Your task to perform on an android device: What are the best selling refrigerators at Home Depot? Image 0: 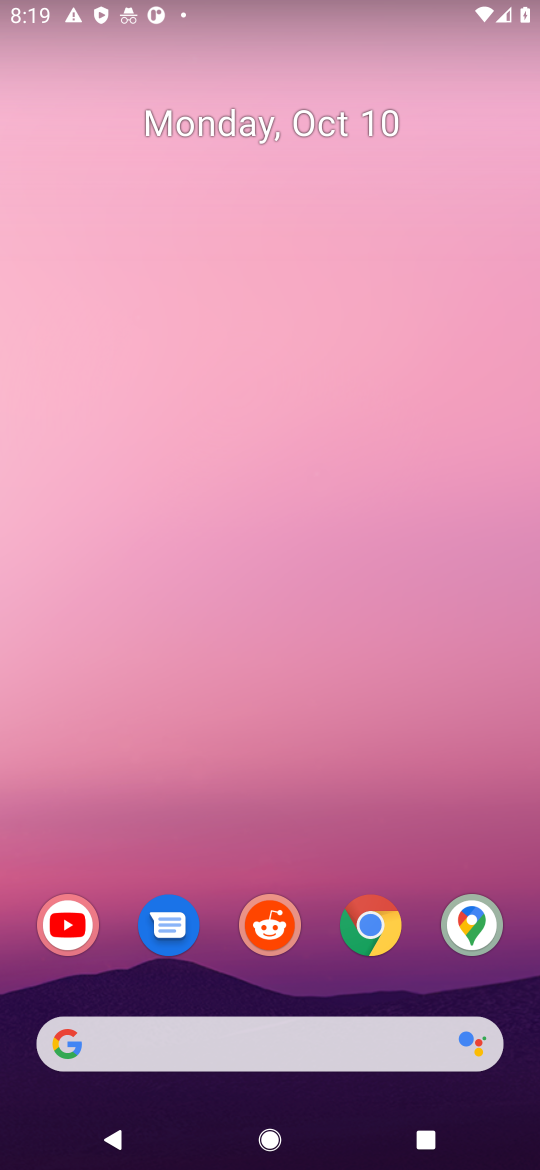
Step 0: drag from (340, 1002) to (293, 40)
Your task to perform on an android device: What are the best selling refrigerators at Home Depot? Image 1: 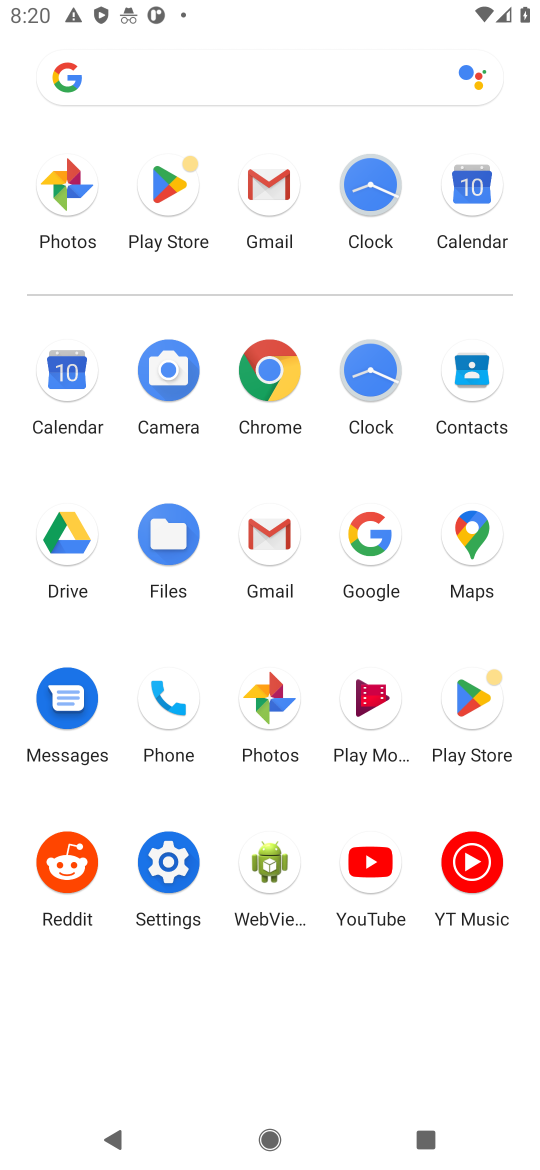
Step 1: click (266, 372)
Your task to perform on an android device: What are the best selling refrigerators at Home Depot? Image 2: 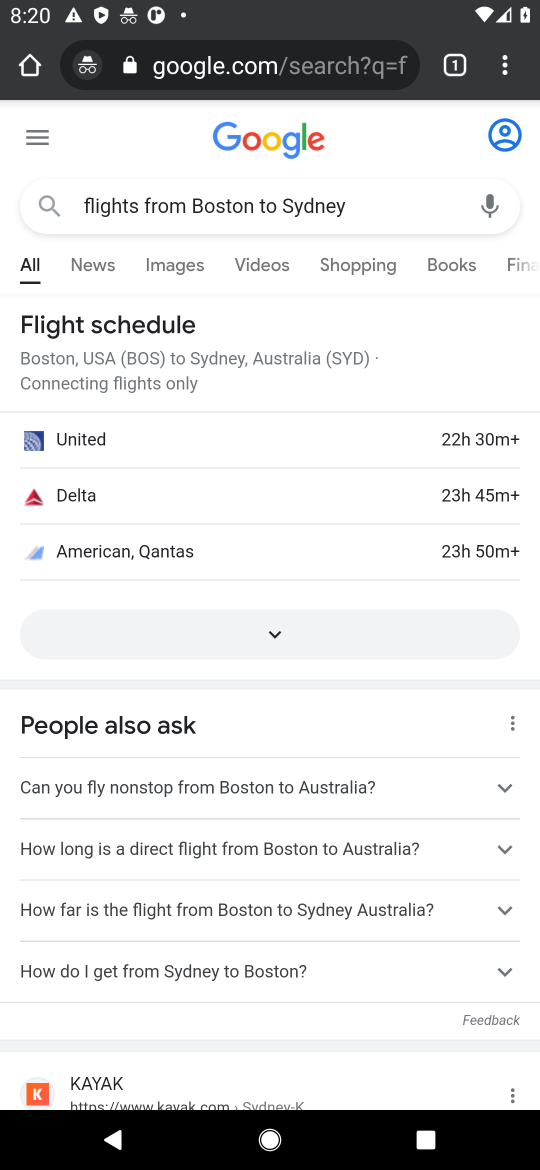
Step 2: click (390, 189)
Your task to perform on an android device: What are the best selling refrigerators at Home Depot? Image 3: 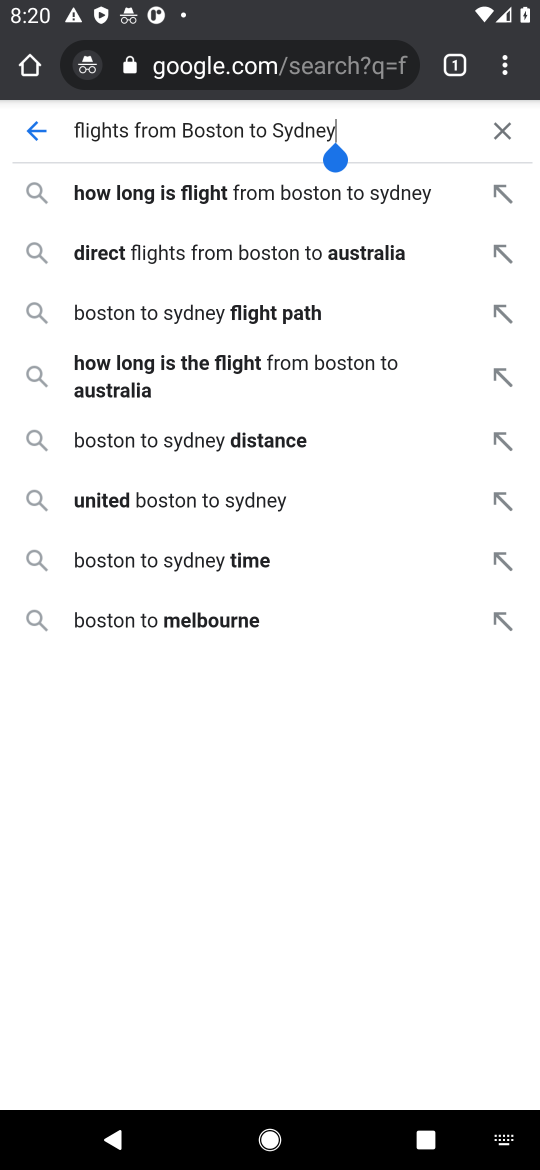
Step 3: click (499, 119)
Your task to perform on an android device: What are the best selling refrigerators at Home Depot? Image 4: 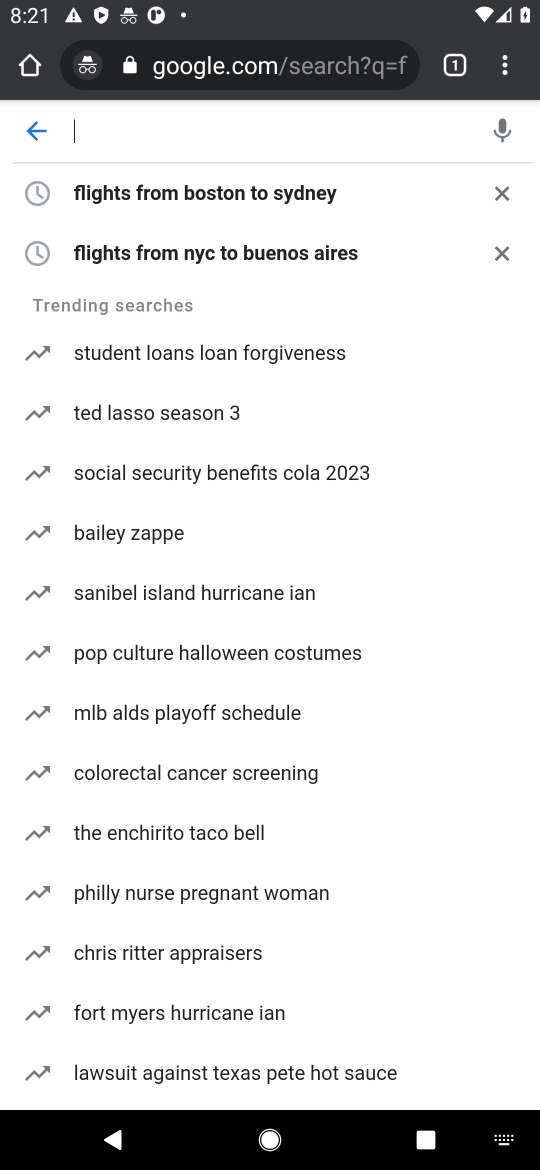
Step 4: type "best selling refigerators at Home Depot"
Your task to perform on an android device: What are the best selling refrigerators at Home Depot? Image 5: 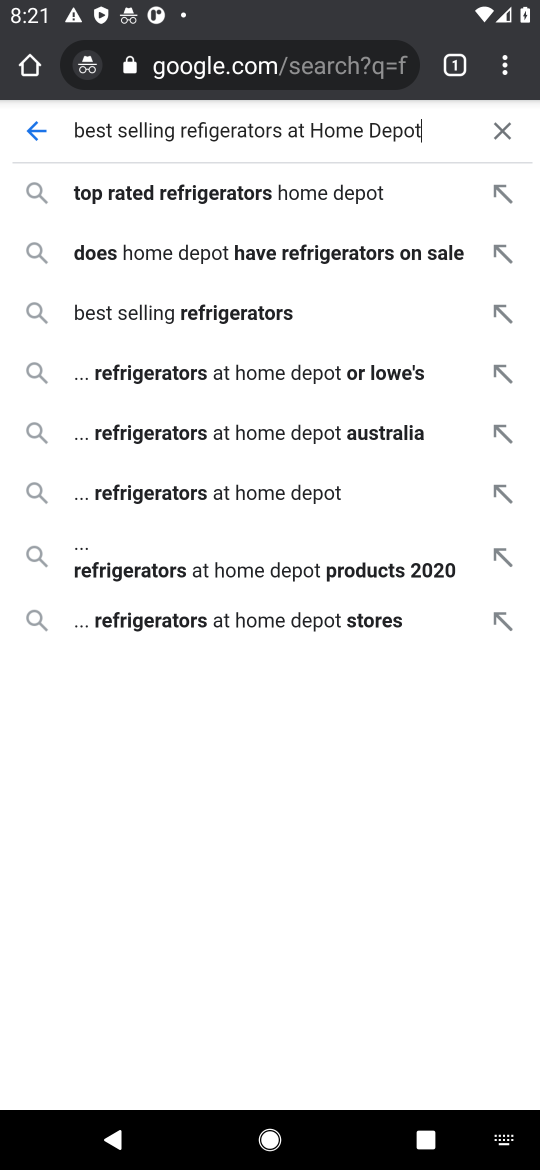
Step 5: type "?"
Your task to perform on an android device: What are the best selling refrigerators at Home Depot? Image 6: 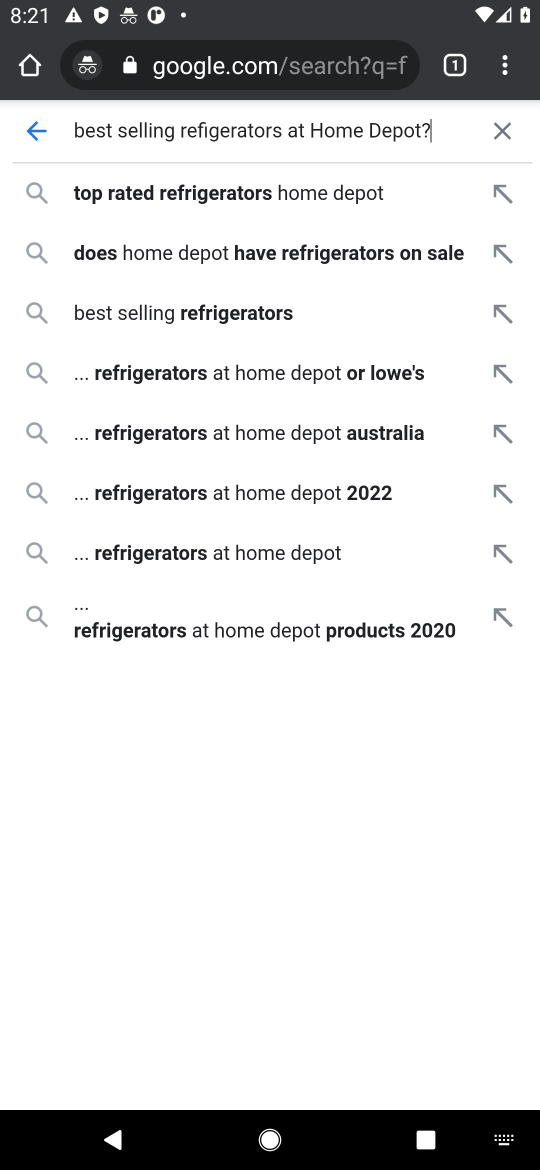
Step 6: press enter
Your task to perform on an android device: What are the best selling refrigerators at Home Depot? Image 7: 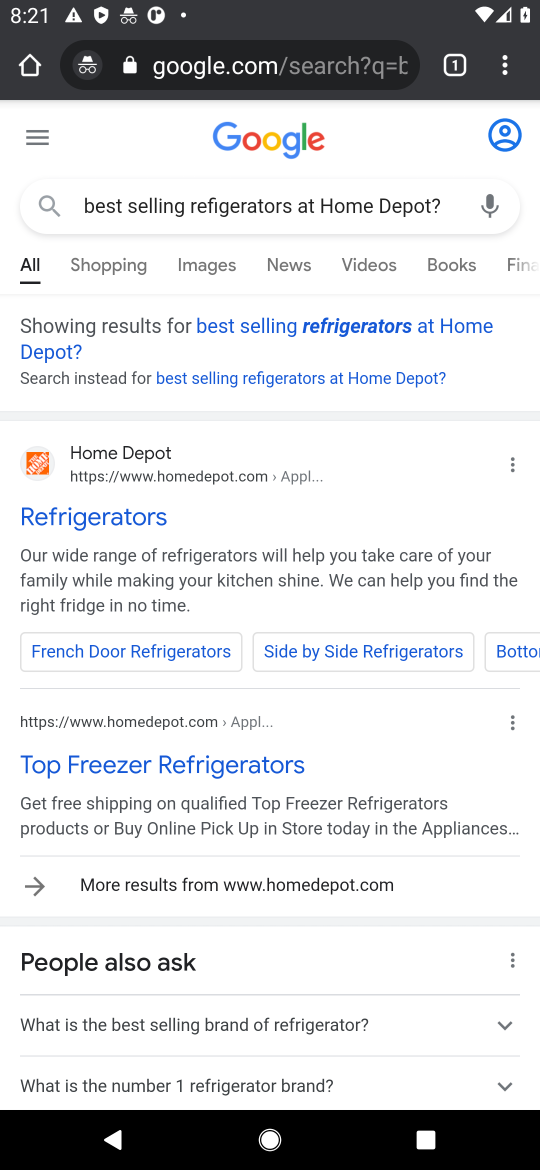
Step 7: click (62, 521)
Your task to perform on an android device: What are the best selling refrigerators at Home Depot? Image 8: 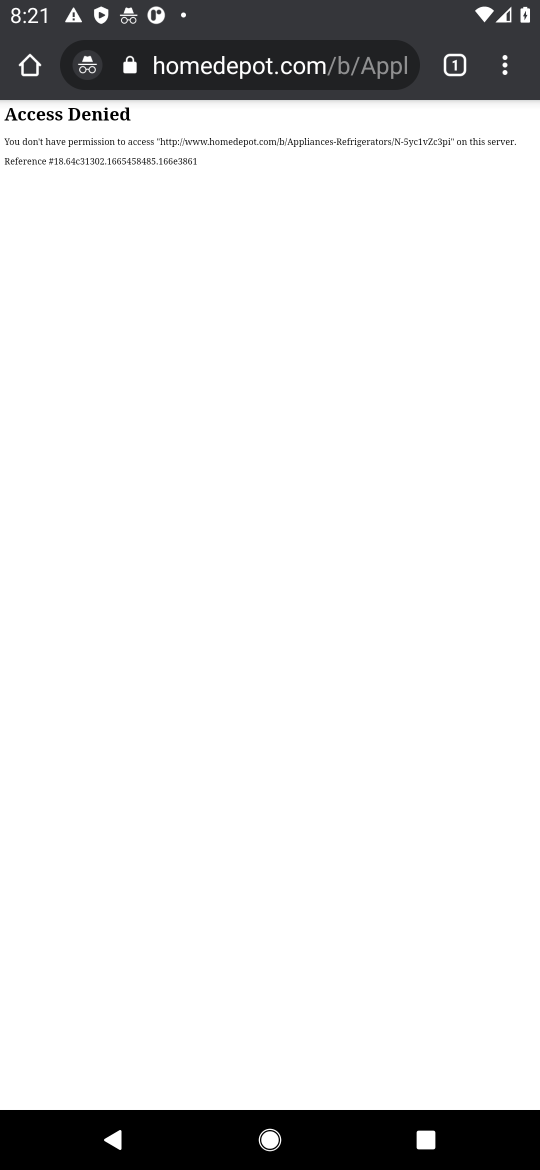
Step 8: task complete